Your task to perform on an android device: toggle sleep mode Image 0: 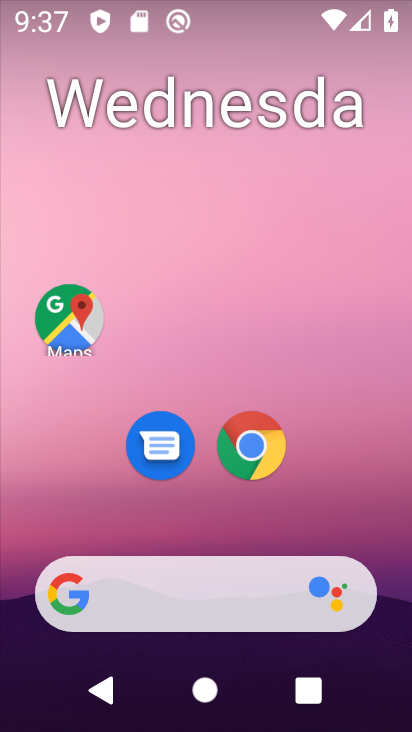
Step 0: drag from (165, 522) to (305, 25)
Your task to perform on an android device: toggle sleep mode Image 1: 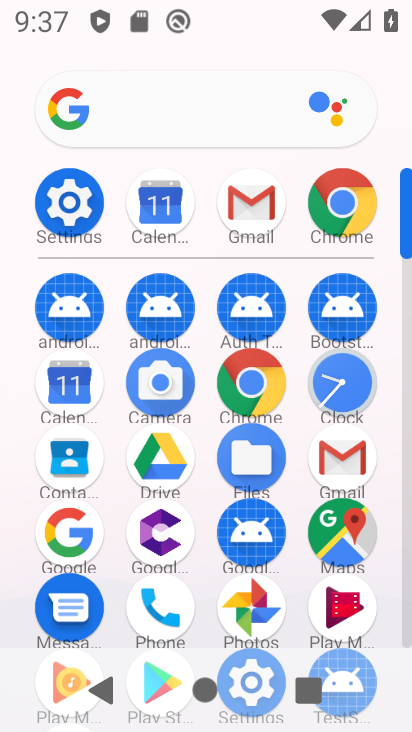
Step 1: click (69, 195)
Your task to perform on an android device: toggle sleep mode Image 2: 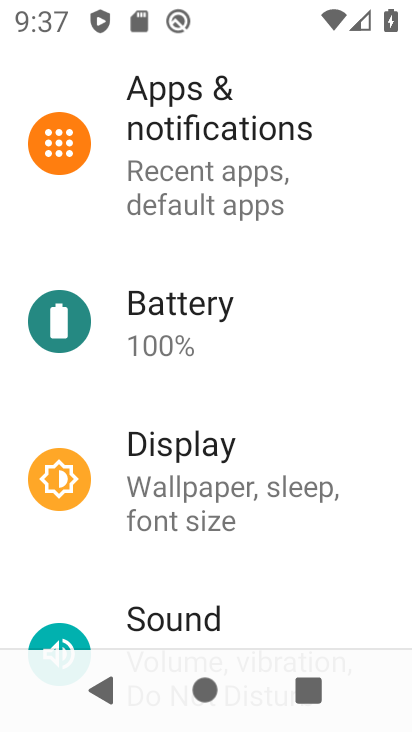
Step 2: drag from (180, 158) to (184, 651)
Your task to perform on an android device: toggle sleep mode Image 3: 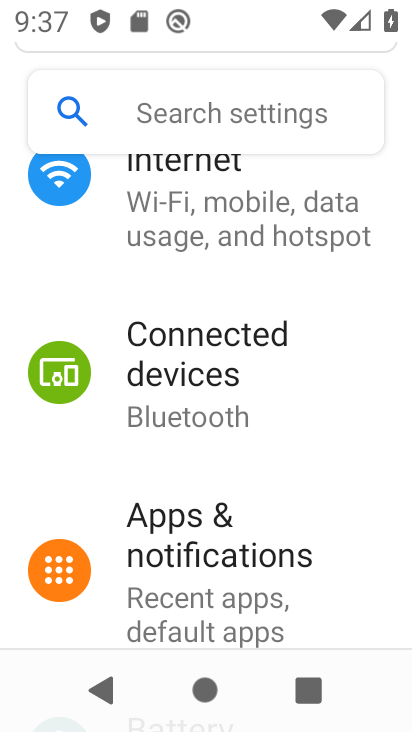
Step 3: click (173, 111)
Your task to perform on an android device: toggle sleep mode Image 4: 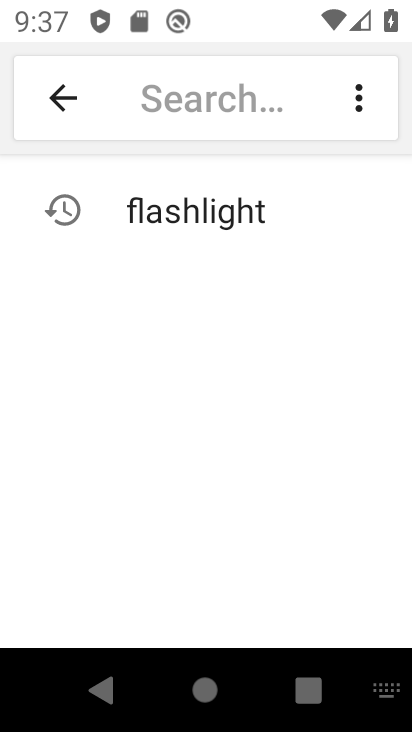
Step 4: type "sleep mode"
Your task to perform on an android device: toggle sleep mode Image 5: 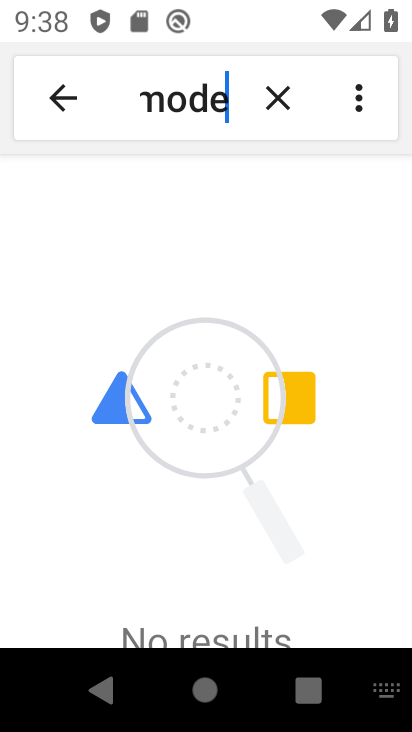
Step 5: task complete